Your task to perform on an android device: Search for a new lawnmower on Lowes. Image 0: 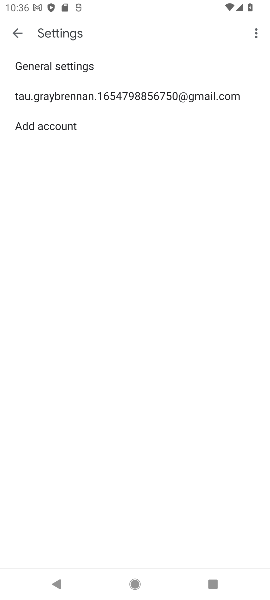
Step 0: press home button
Your task to perform on an android device: Search for a new lawnmower on Lowes. Image 1: 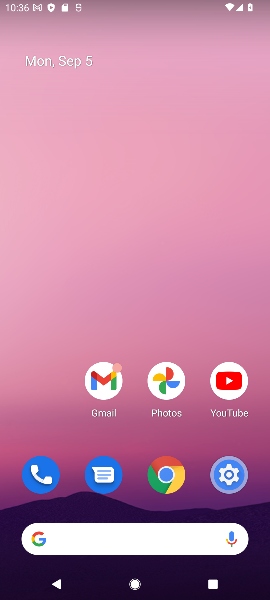
Step 1: click (109, 534)
Your task to perform on an android device: Search for a new lawnmower on Lowes. Image 2: 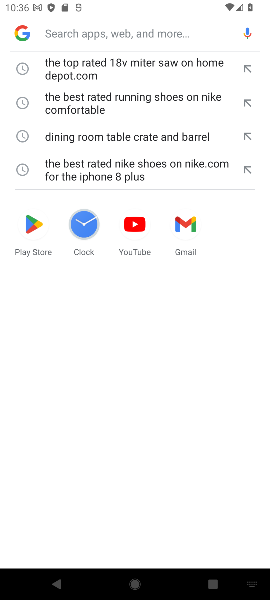
Step 2: type " a new lawnmower on Lowes"
Your task to perform on an android device: Search for a new lawnmower on Lowes. Image 3: 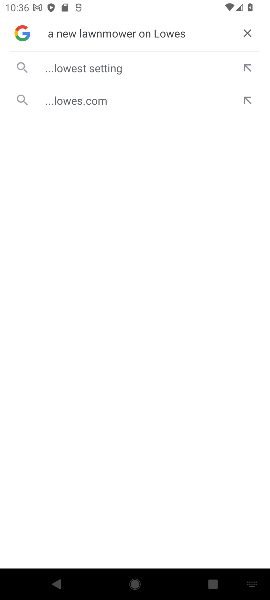
Step 3: click (86, 111)
Your task to perform on an android device: Search for a new lawnmower on Lowes. Image 4: 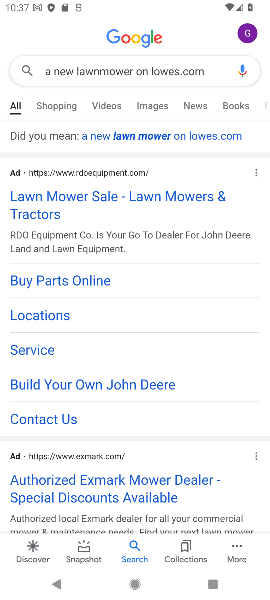
Step 4: task complete